Your task to perform on an android device: View the shopping cart on walmart.com. Search for logitech g903 on walmart.com, select the first entry, and add it to the cart. Image 0: 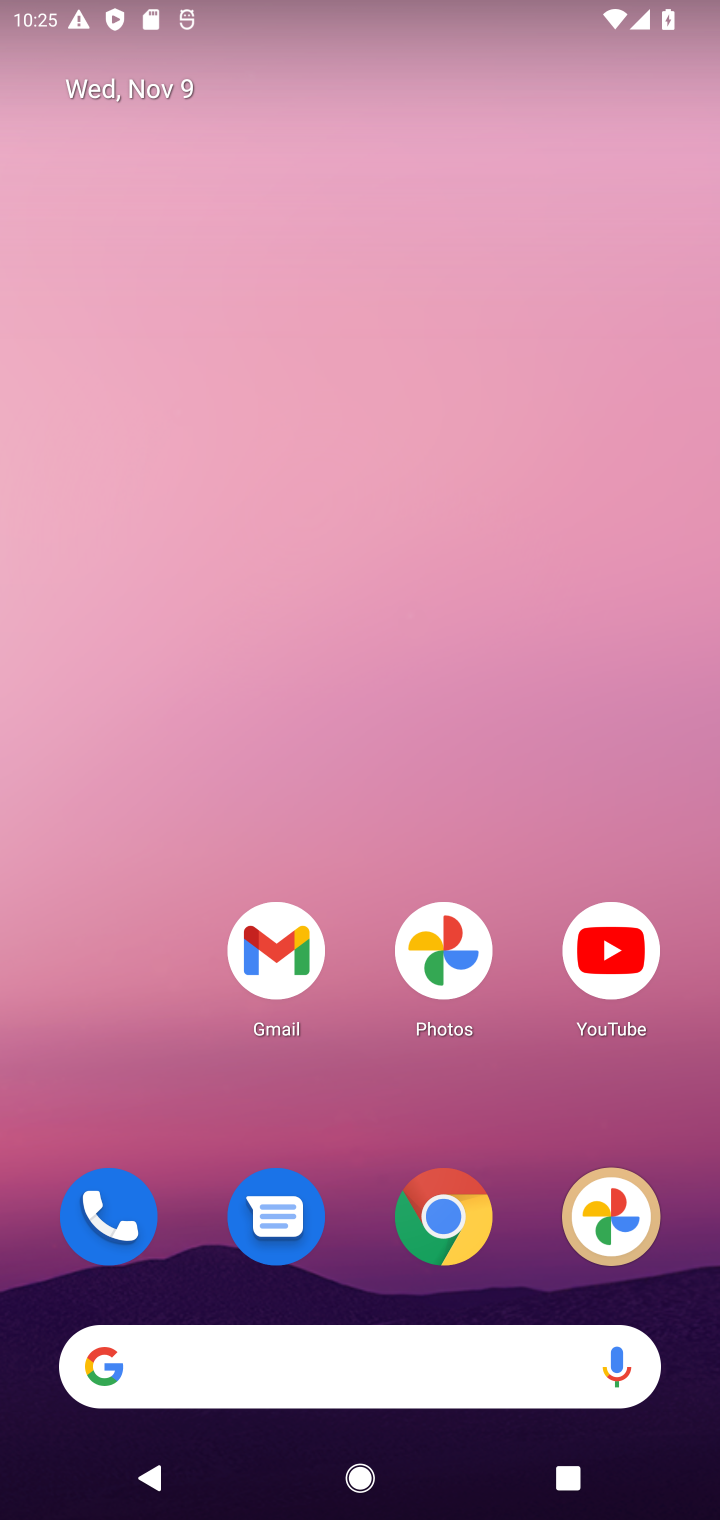
Step 0: drag from (377, 1112) to (454, 75)
Your task to perform on an android device: View the shopping cart on walmart.com. Search for logitech g903 on walmart.com, select the first entry, and add it to the cart. Image 1: 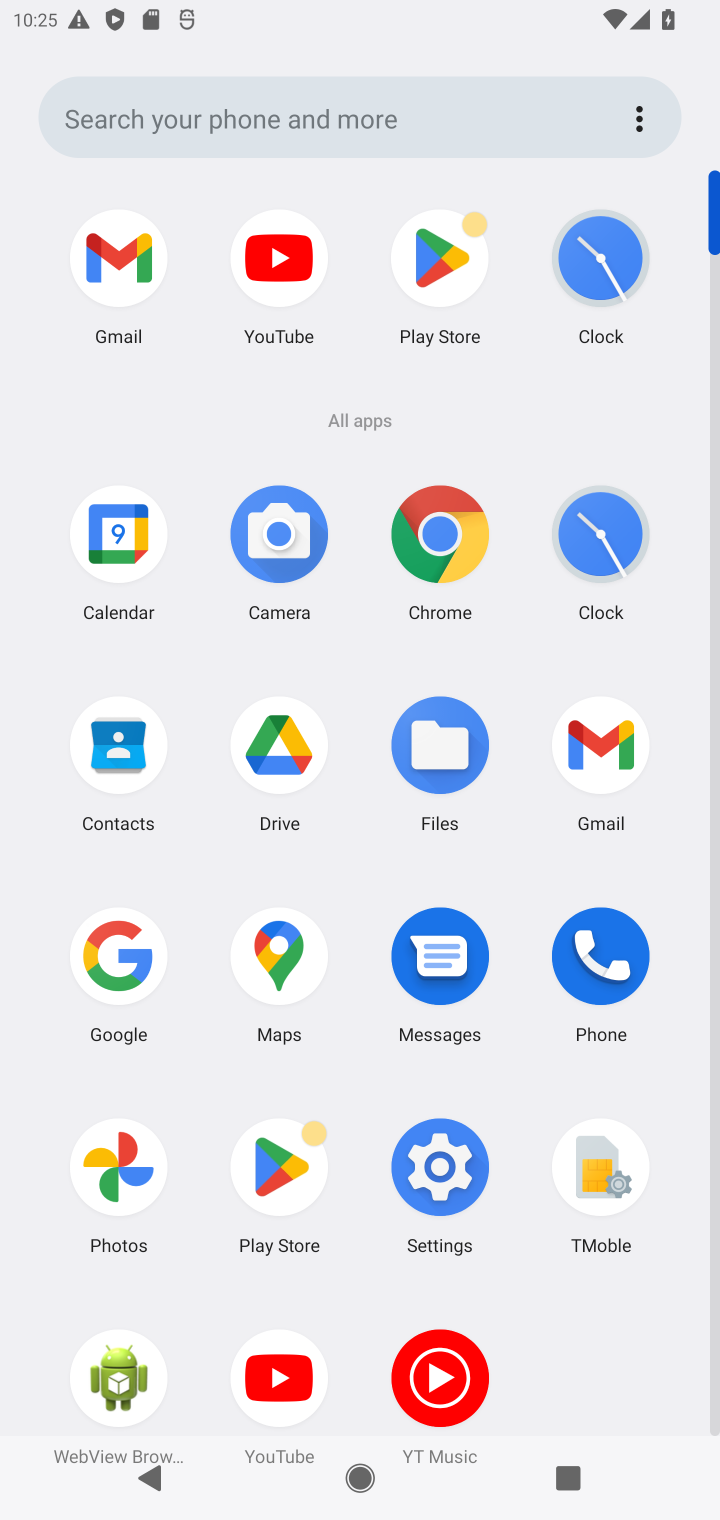
Step 1: click (443, 539)
Your task to perform on an android device: View the shopping cart on walmart.com. Search for logitech g903 on walmart.com, select the first entry, and add it to the cart. Image 2: 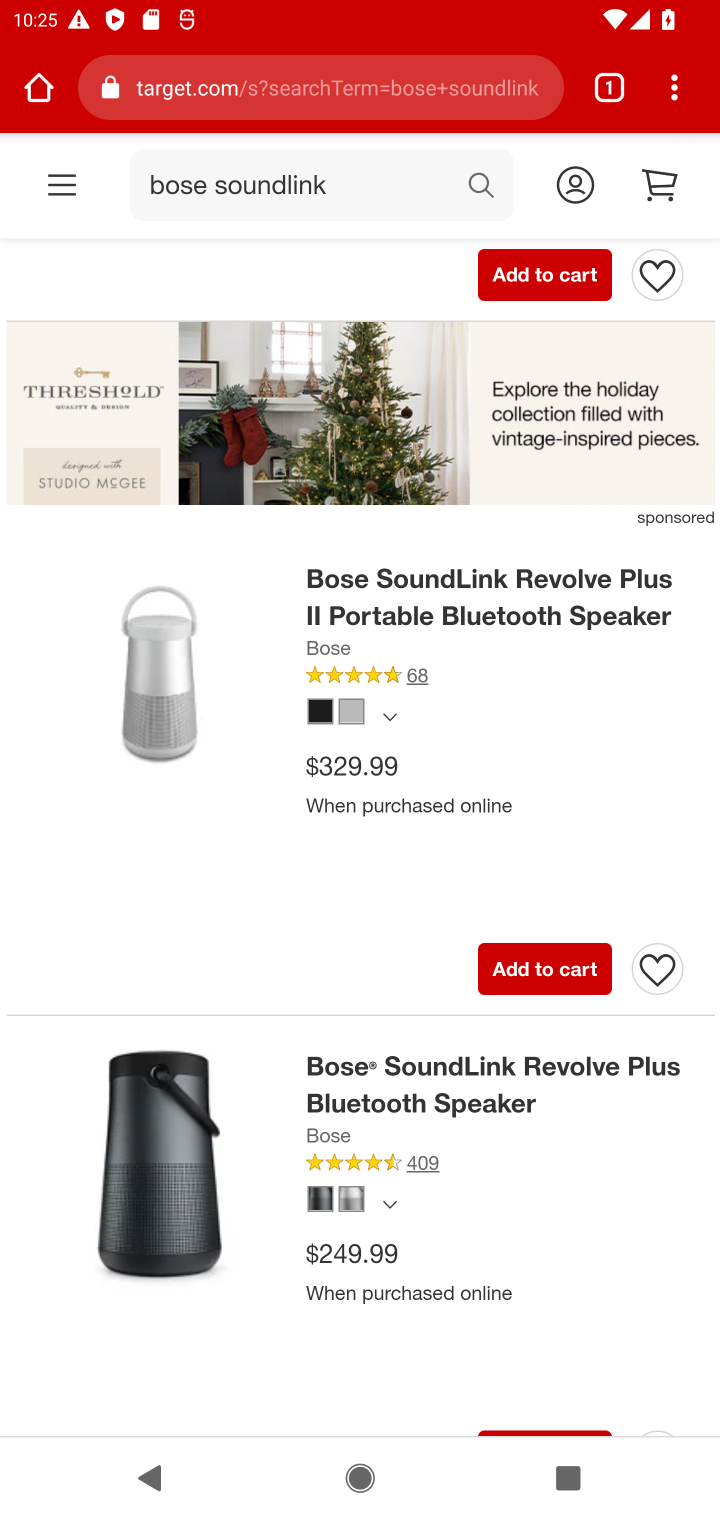
Step 2: click (405, 102)
Your task to perform on an android device: View the shopping cart on walmart.com. Search for logitech g903 on walmart.com, select the first entry, and add it to the cart. Image 3: 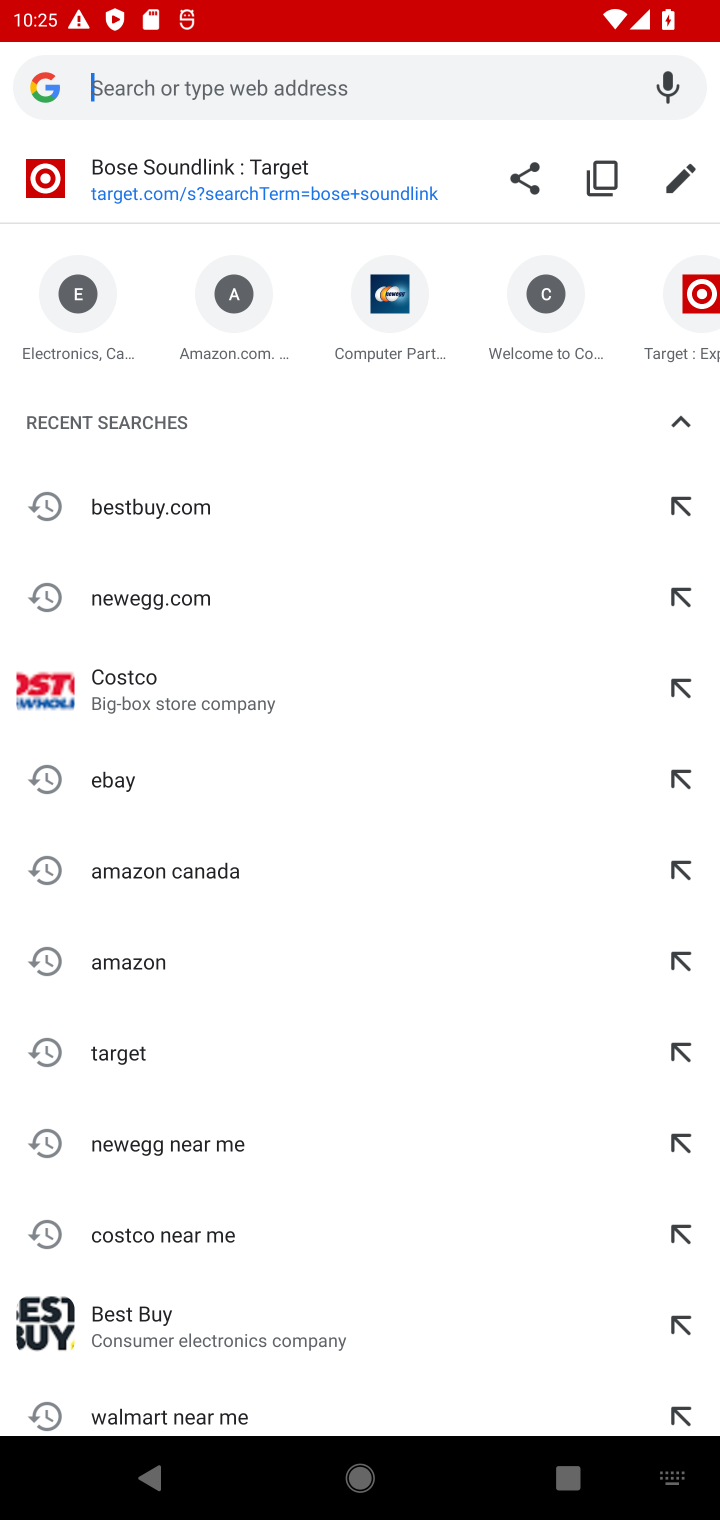
Step 3: type "walmart.com"
Your task to perform on an android device: View the shopping cart on walmart.com. Search for logitech g903 on walmart.com, select the first entry, and add it to the cart. Image 4: 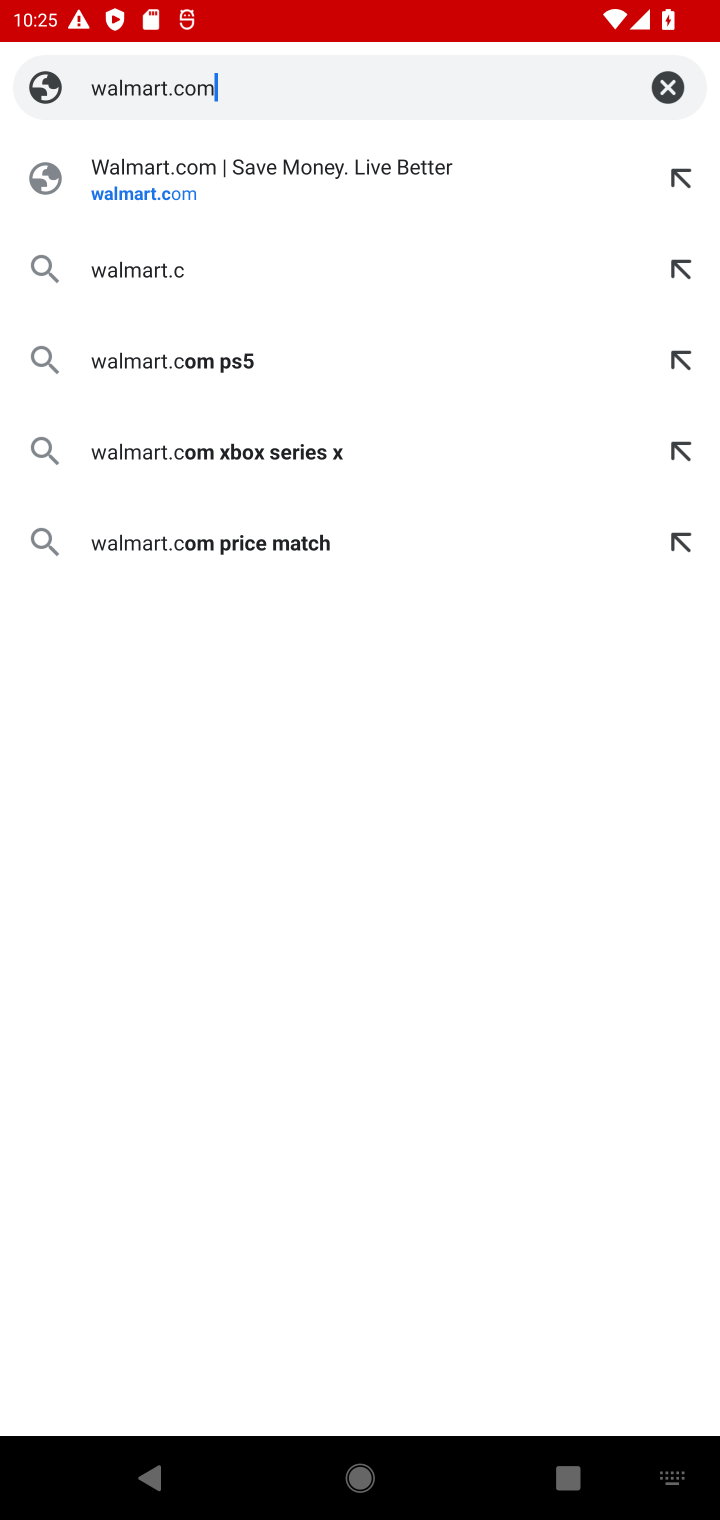
Step 4: press enter
Your task to perform on an android device: View the shopping cart on walmart.com. Search for logitech g903 on walmart.com, select the first entry, and add it to the cart. Image 5: 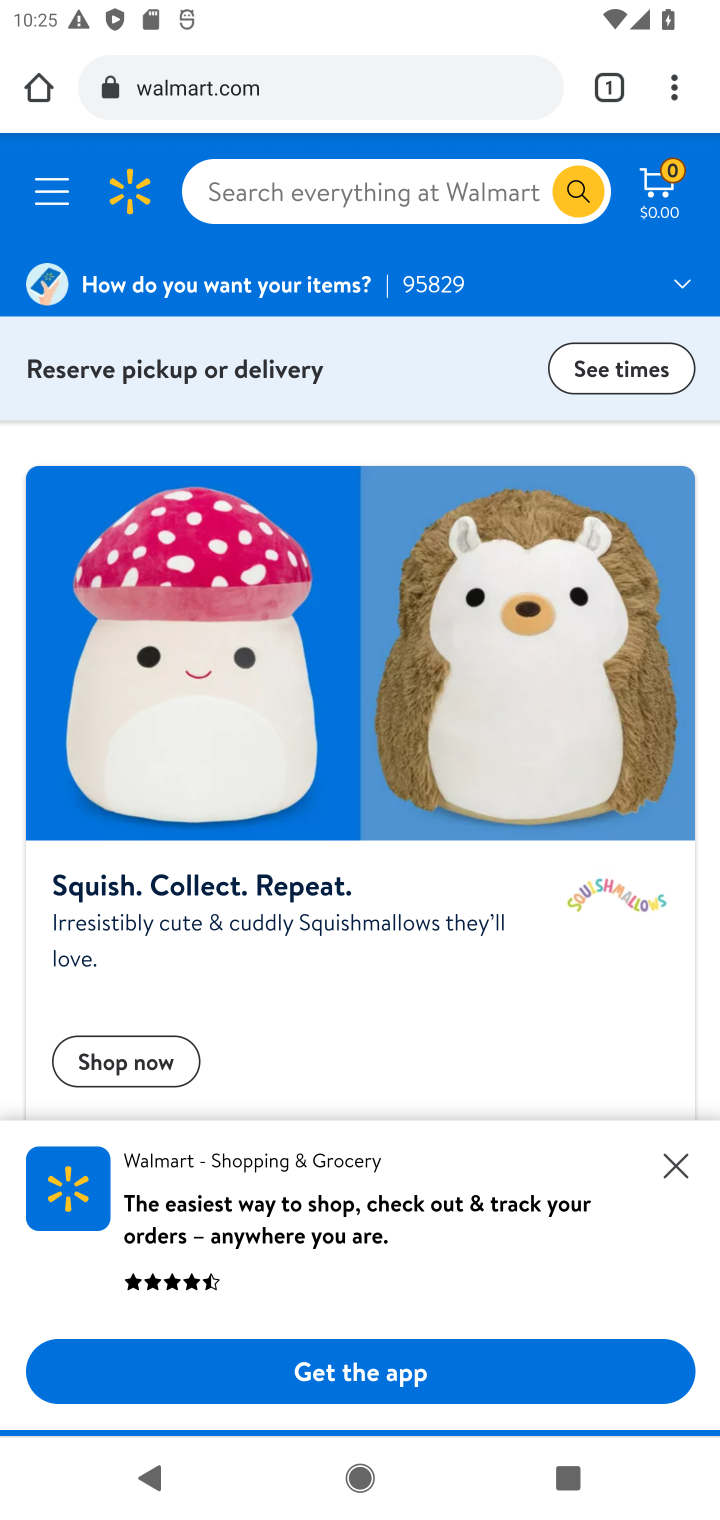
Step 5: click (655, 179)
Your task to perform on an android device: View the shopping cart on walmart.com. Search for logitech g903 on walmart.com, select the first entry, and add it to the cart. Image 6: 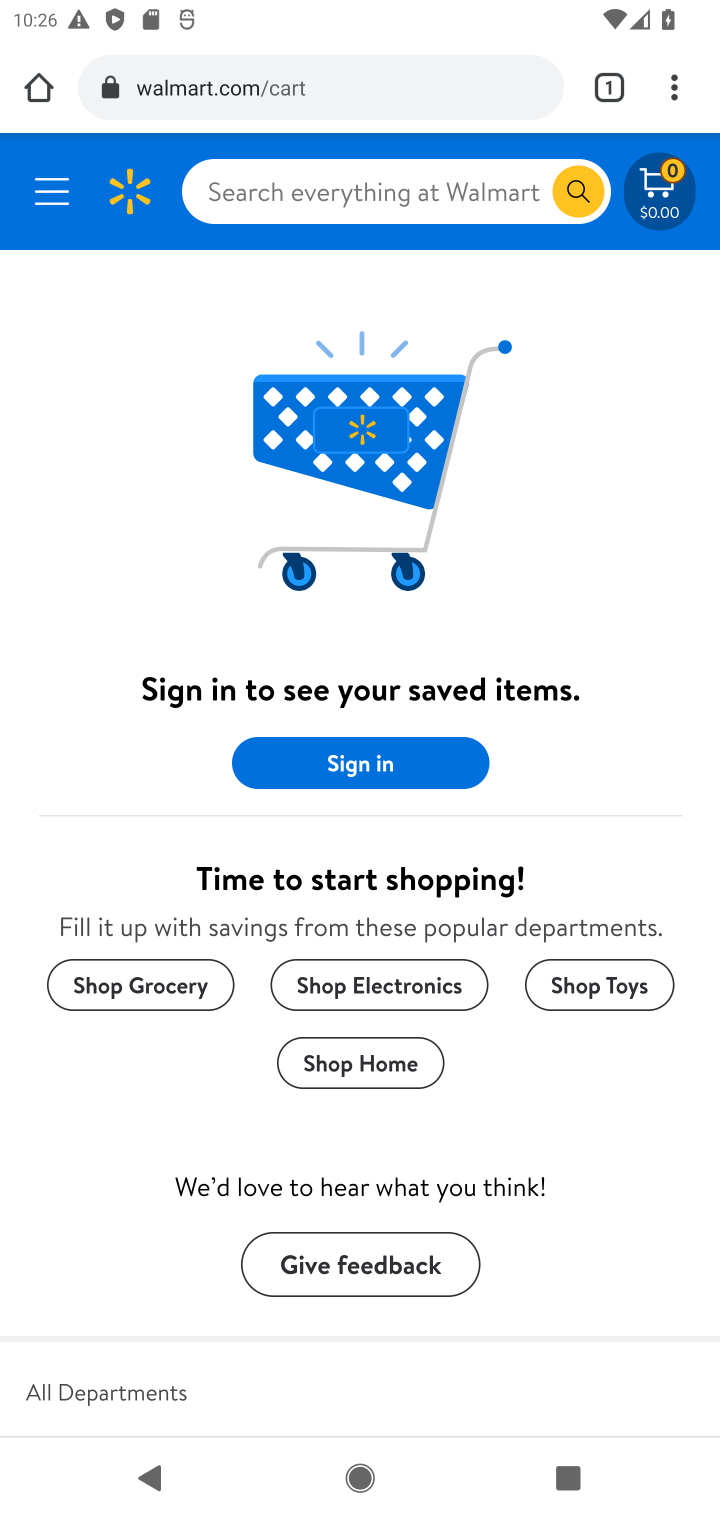
Step 6: click (414, 192)
Your task to perform on an android device: View the shopping cart on walmart.com. Search for logitech g903 on walmart.com, select the first entry, and add it to the cart. Image 7: 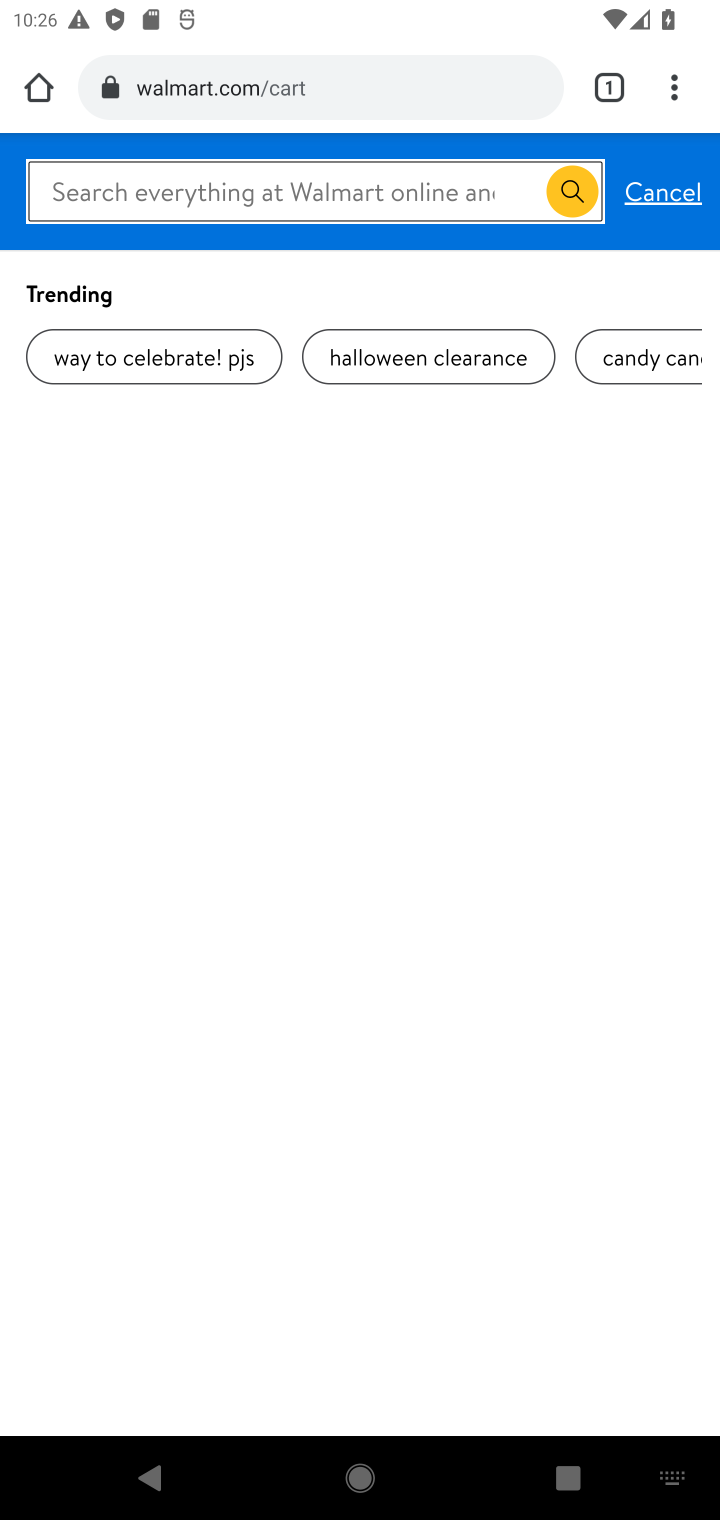
Step 7: type "logitech g903"
Your task to perform on an android device: View the shopping cart on walmart.com. Search for logitech g903 on walmart.com, select the first entry, and add it to the cart. Image 8: 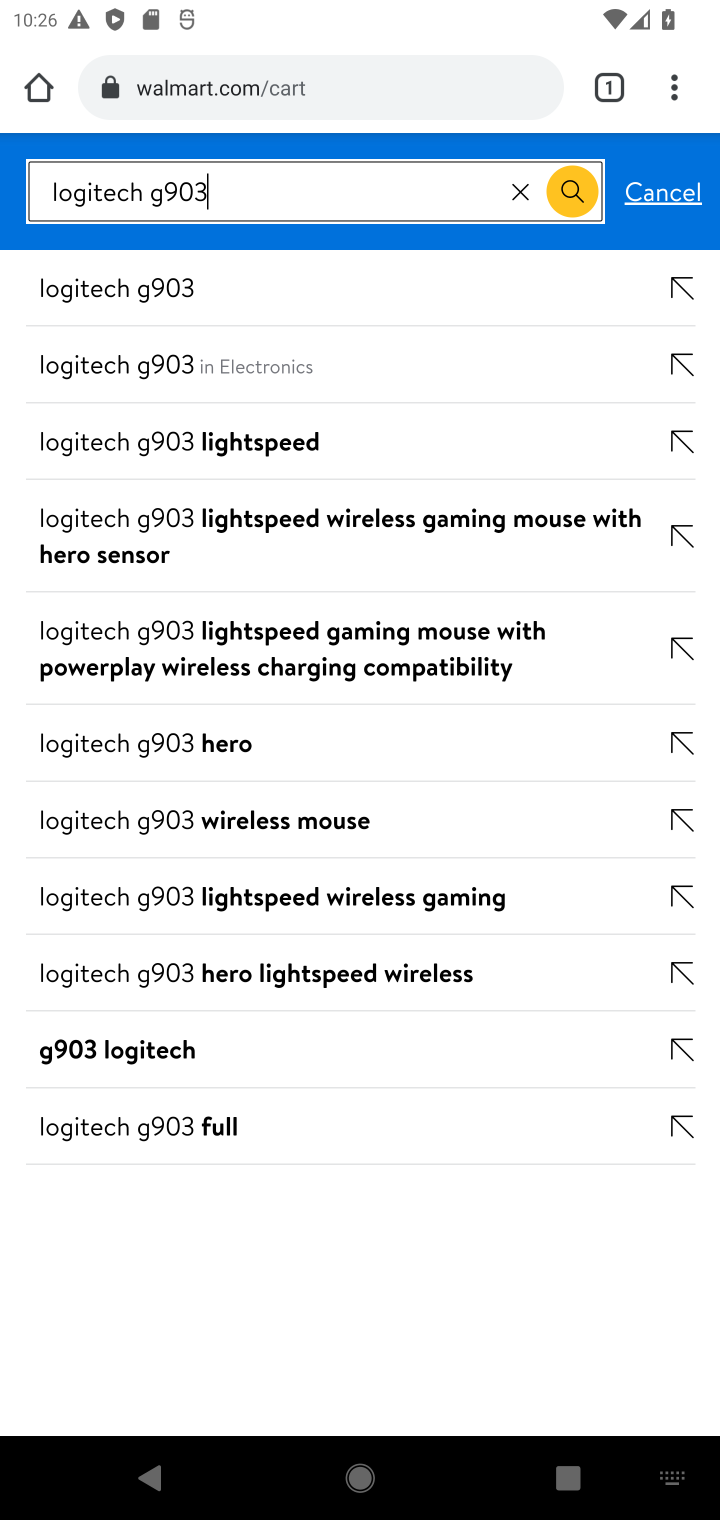
Step 8: press enter
Your task to perform on an android device: View the shopping cart on walmart.com. Search for logitech g903 on walmart.com, select the first entry, and add it to the cart. Image 9: 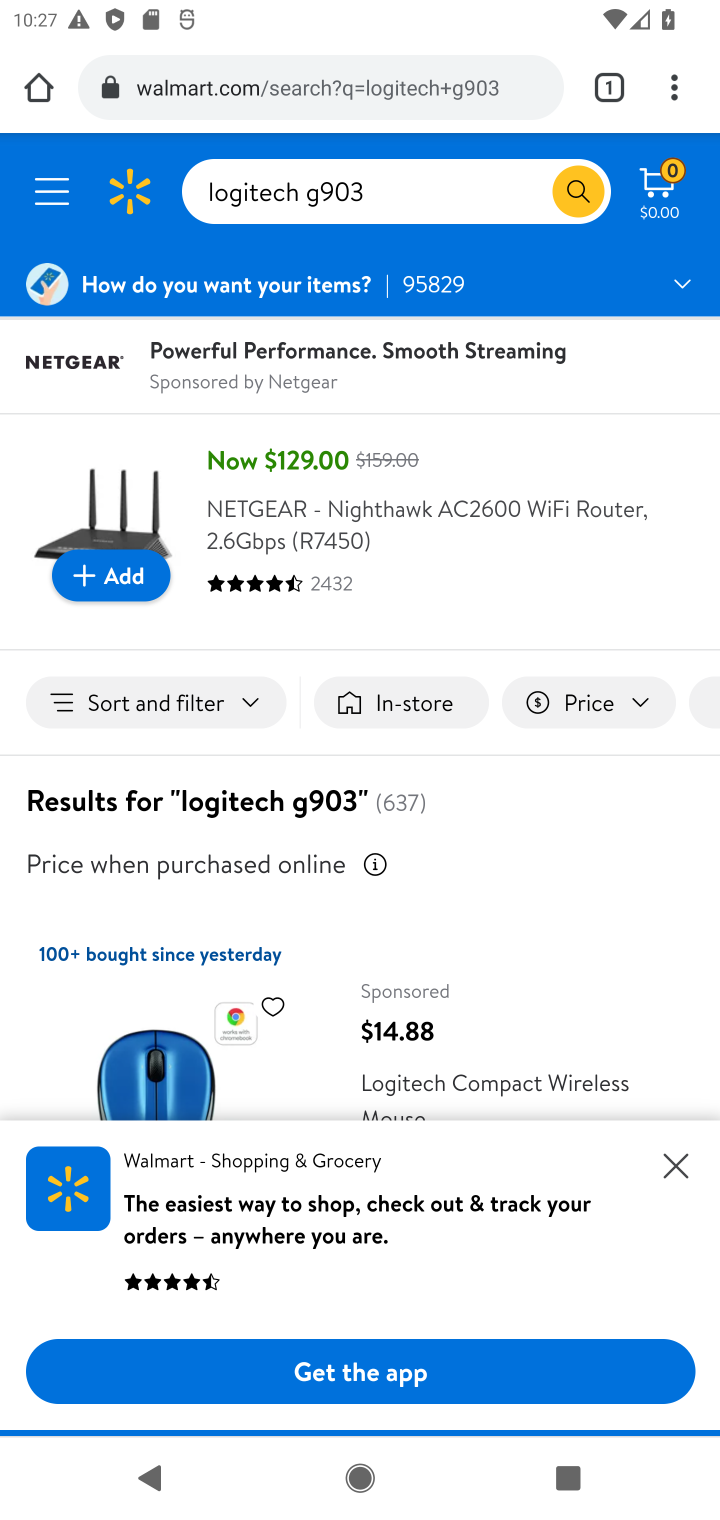
Step 9: drag from (338, 563) to (474, 270)
Your task to perform on an android device: View the shopping cart on walmart.com. Search for logitech g903 on walmart.com, select the first entry, and add it to the cart. Image 10: 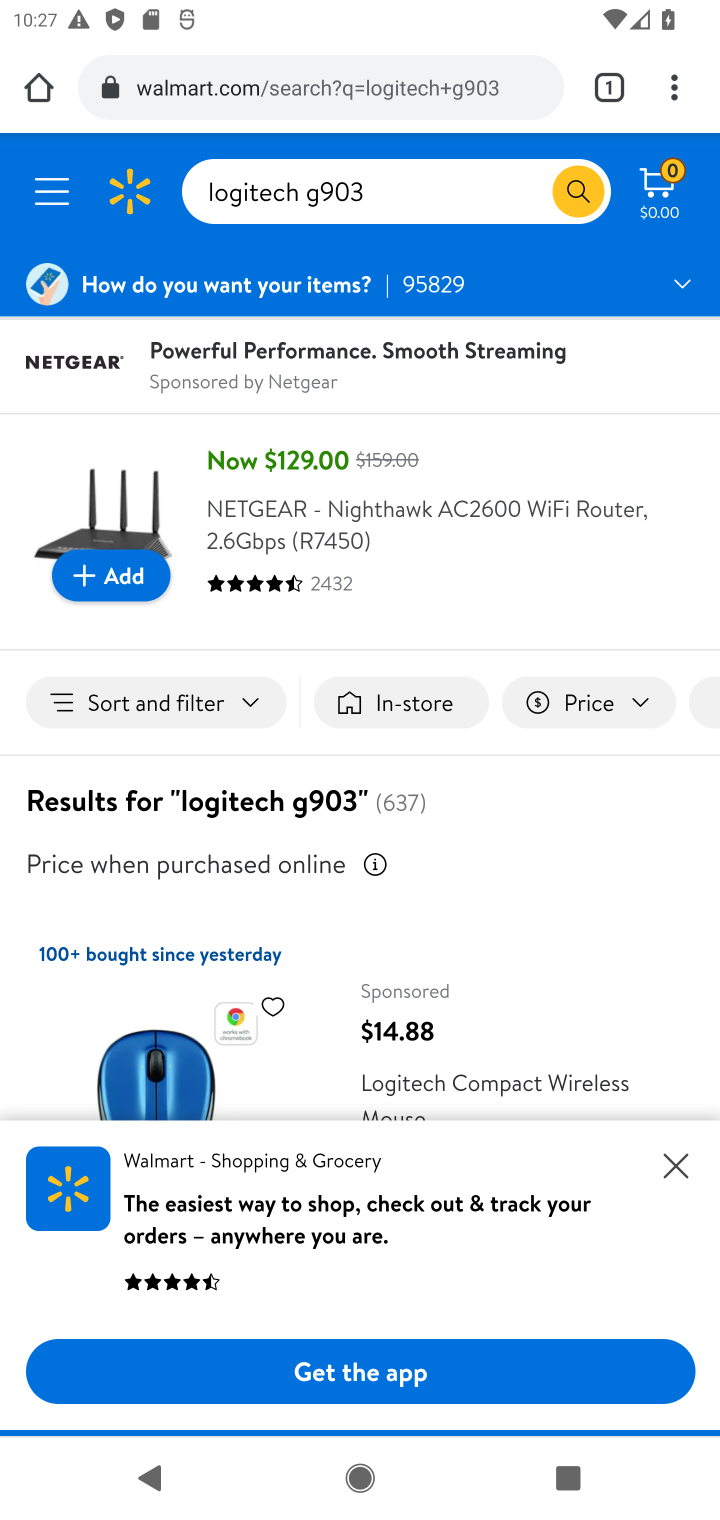
Step 10: click (672, 1167)
Your task to perform on an android device: View the shopping cart on walmart.com. Search for logitech g903 on walmart.com, select the first entry, and add it to the cart. Image 11: 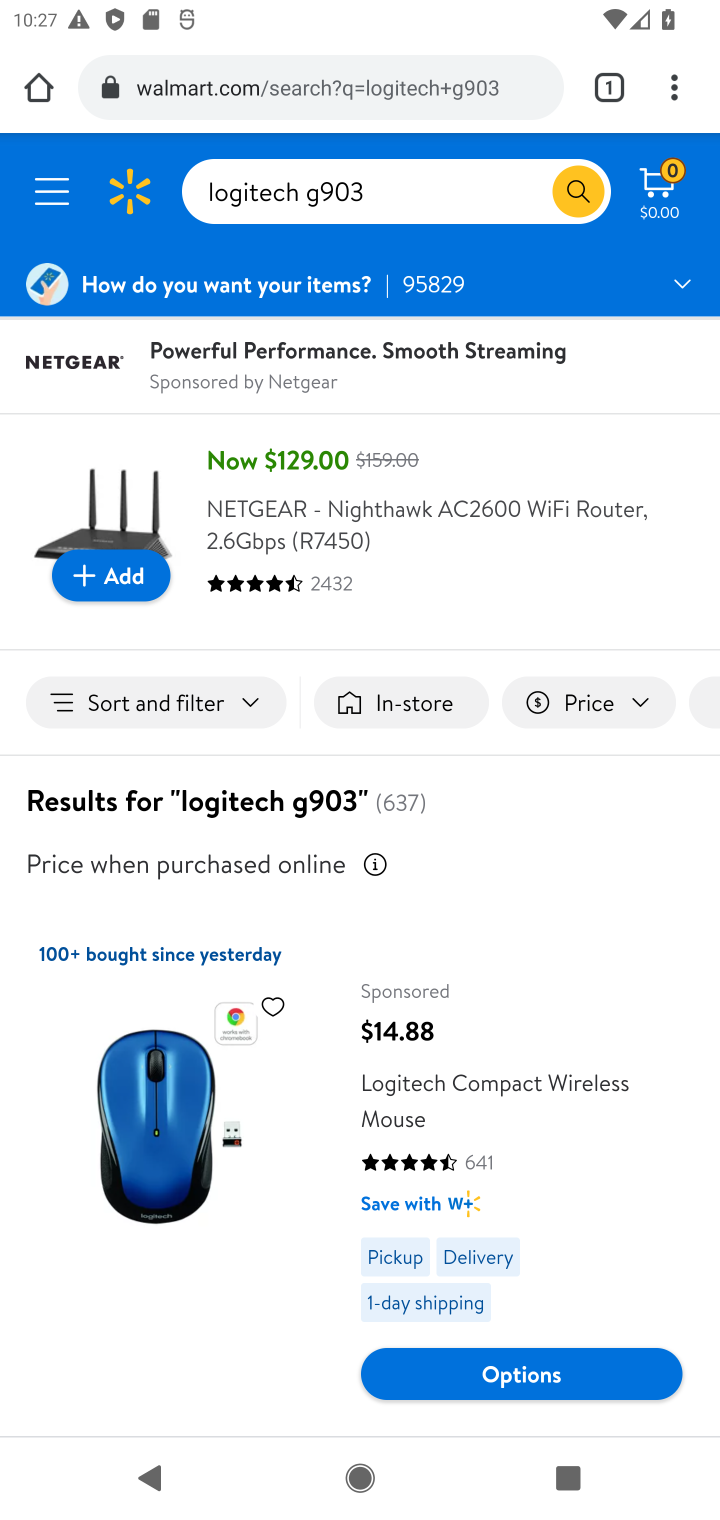
Step 11: drag from (469, 1197) to (507, 581)
Your task to perform on an android device: View the shopping cart on walmart.com. Search for logitech g903 on walmart.com, select the first entry, and add it to the cart. Image 12: 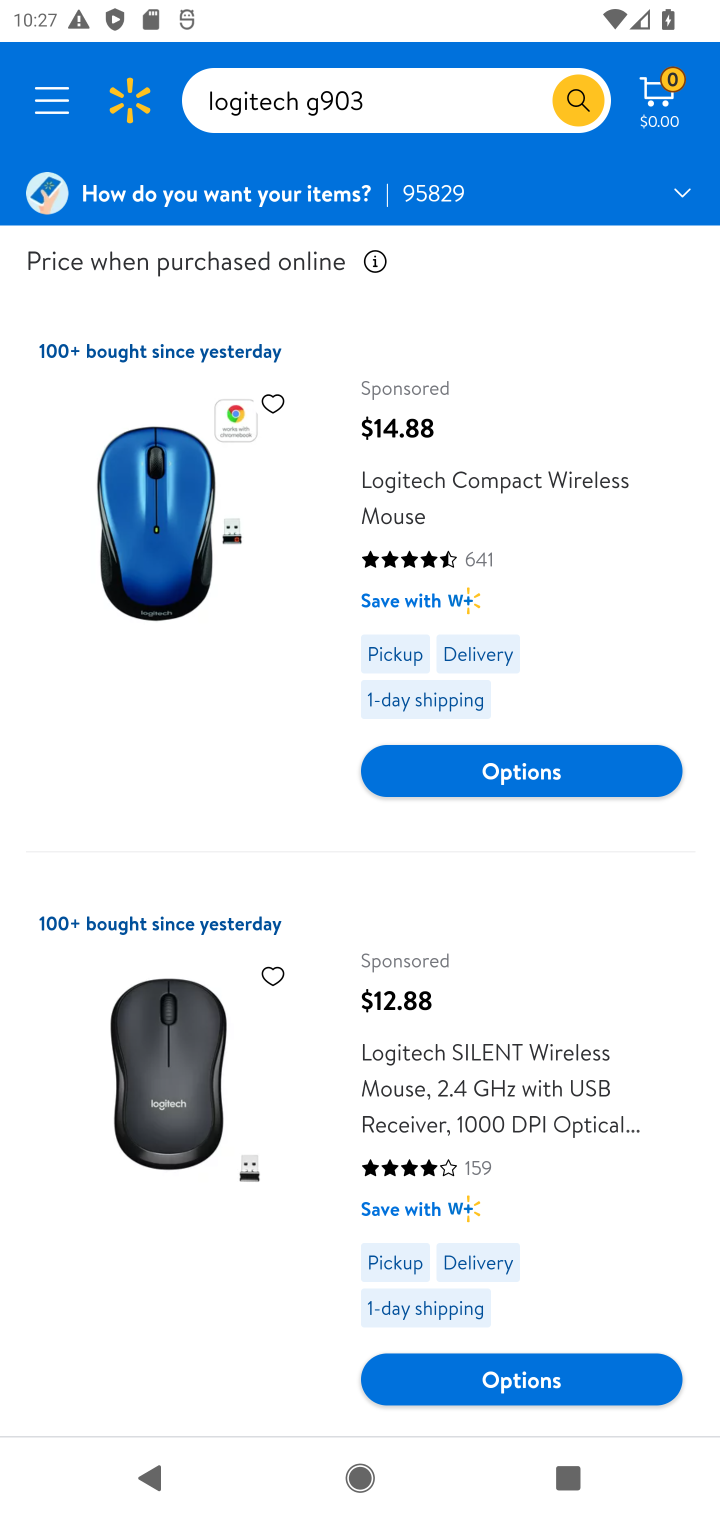
Step 12: drag from (435, 1168) to (471, 443)
Your task to perform on an android device: View the shopping cart on walmart.com. Search for logitech g903 on walmart.com, select the first entry, and add it to the cart. Image 13: 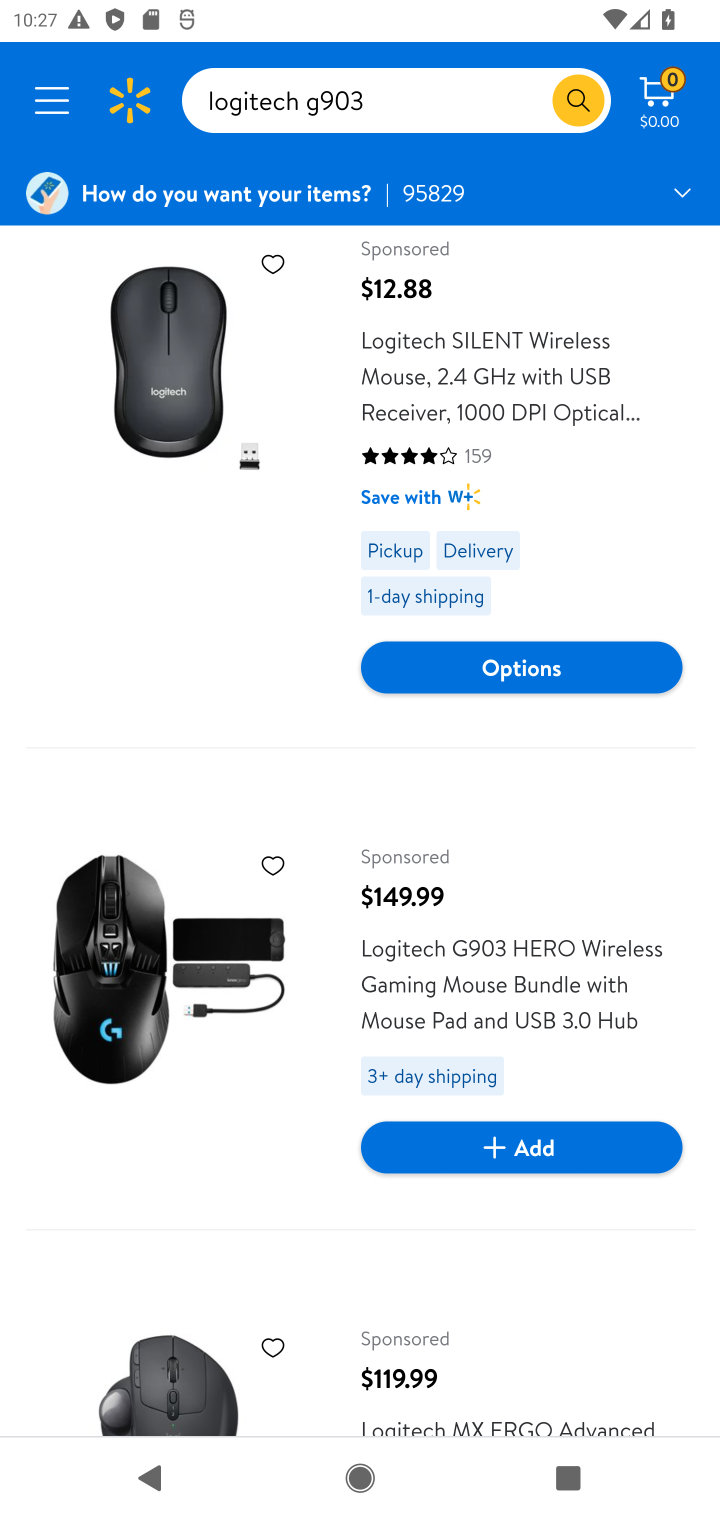
Step 13: drag from (510, 1345) to (518, 480)
Your task to perform on an android device: View the shopping cart on walmart.com. Search for logitech g903 on walmart.com, select the first entry, and add it to the cart. Image 14: 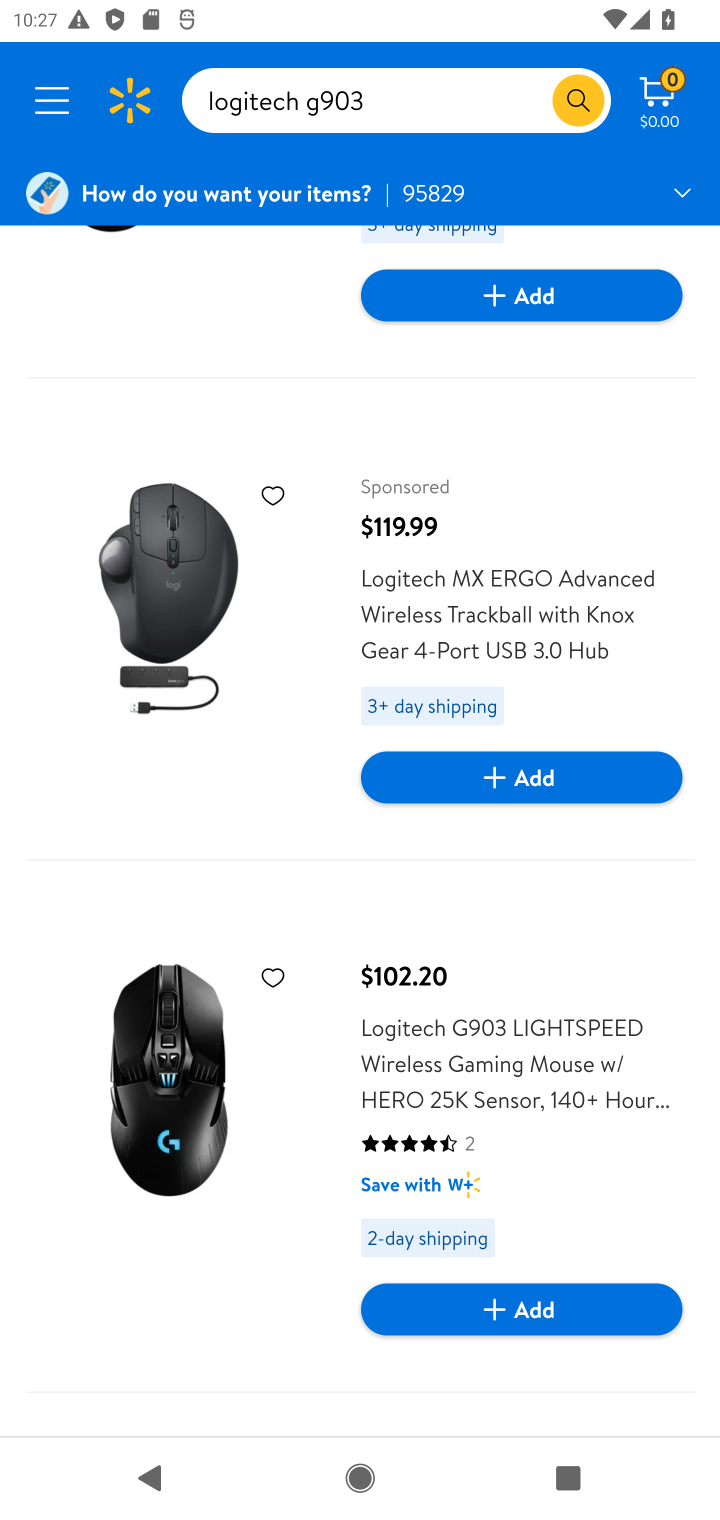
Step 14: click (510, 1316)
Your task to perform on an android device: View the shopping cart on walmart.com. Search for logitech g903 on walmart.com, select the first entry, and add it to the cart. Image 15: 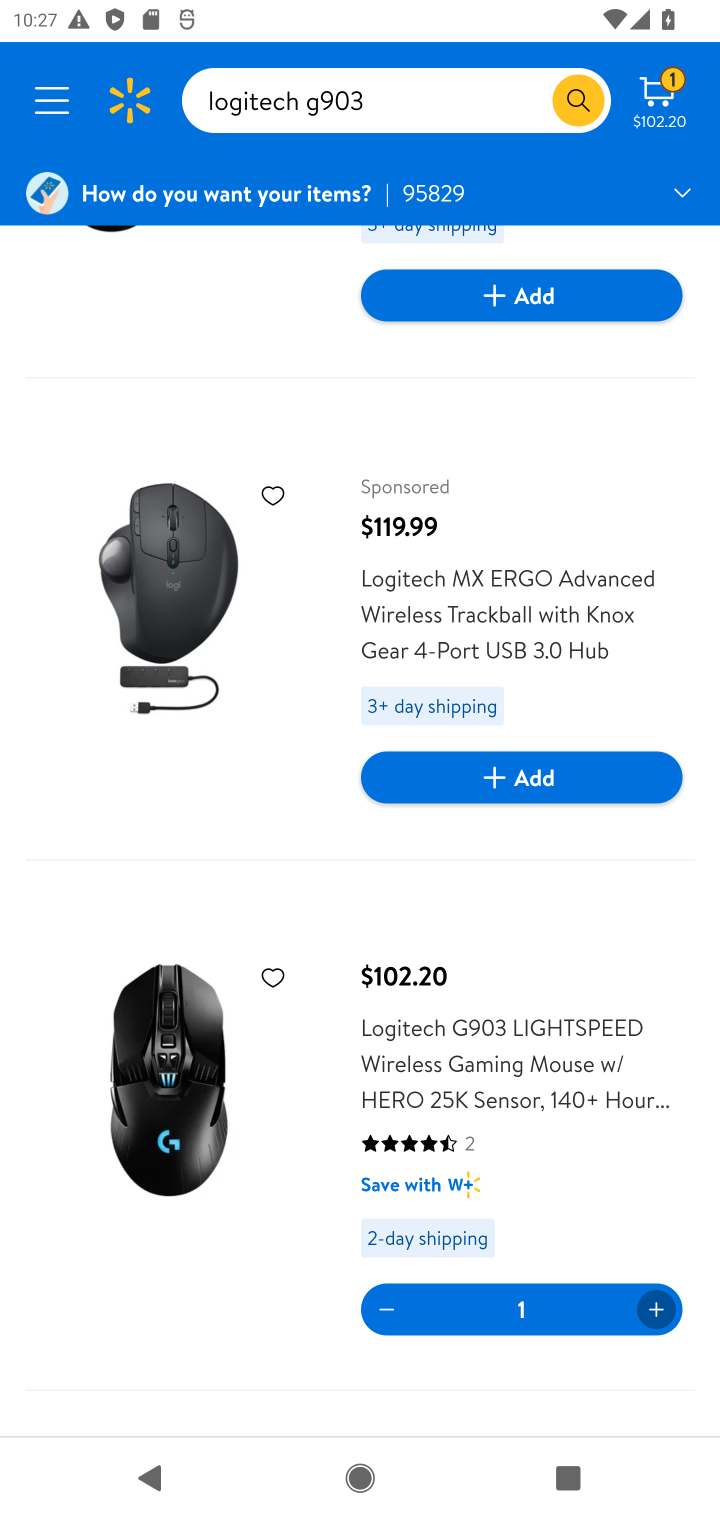
Step 15: task complete